Your task to perform on an android device: open app "Firefox Browser" (install if not already installed) and enter user name: "hashed@outlook.com" and password: "congestive" Image 0: 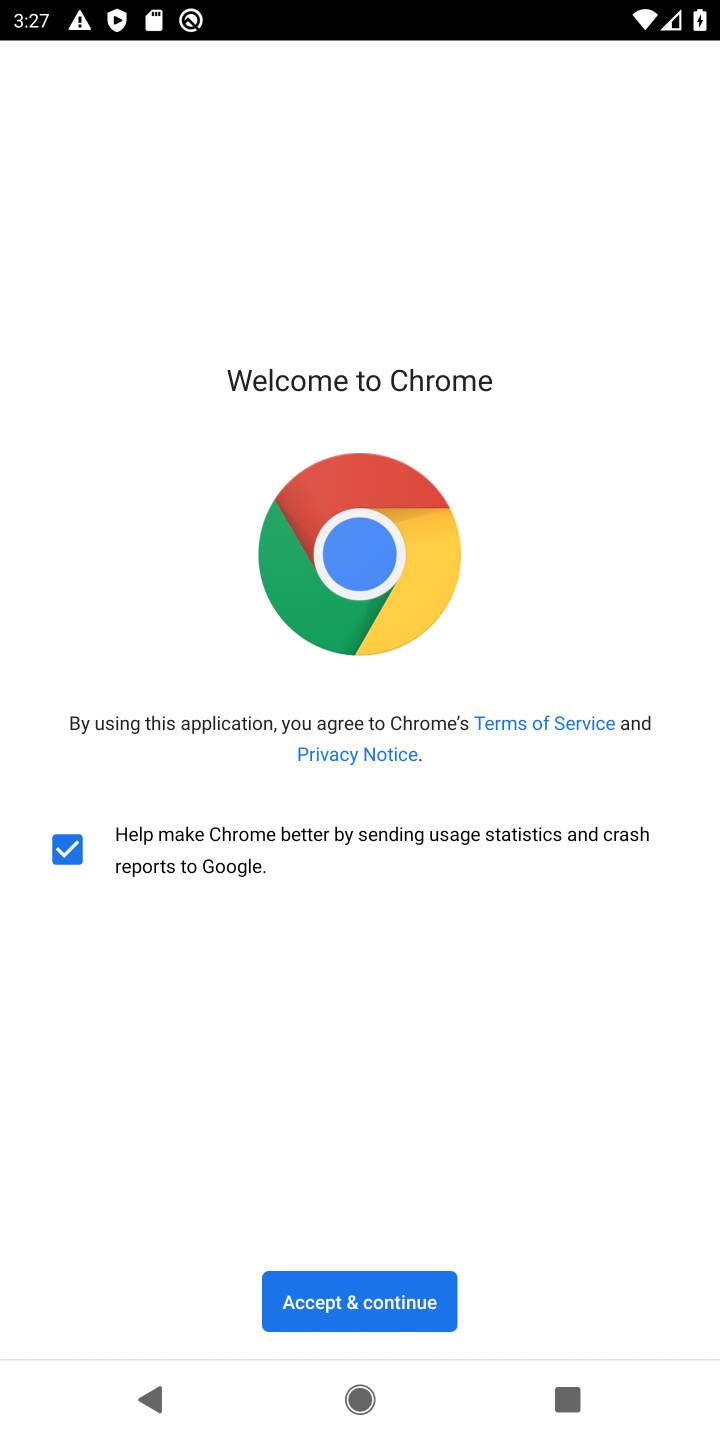
Step 0: press home button
Your task to perform on an android device: open app "Firefox Browser" (install if not already installed) and enter user name: "hashed@outlook.com" and password: "congestive" Image 1: 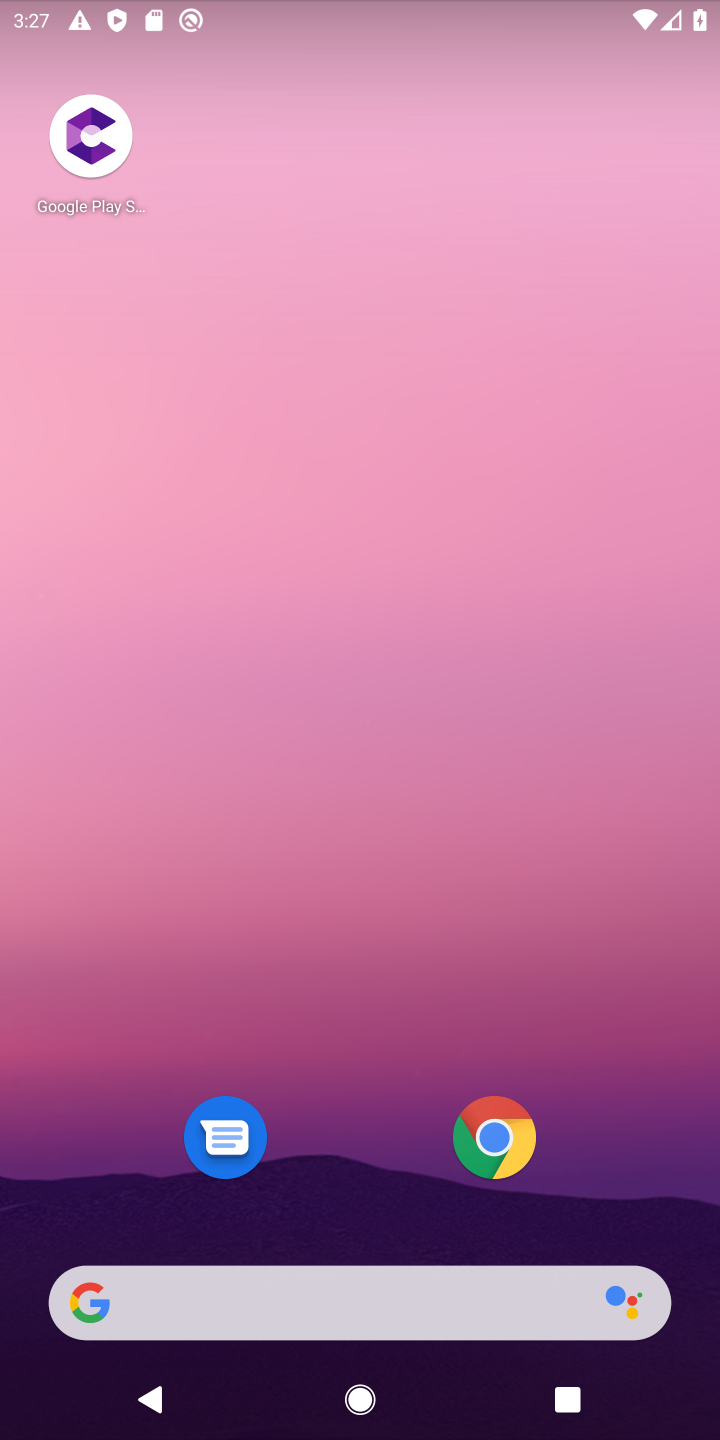
Step 1: drag from (297, 1282) to (255, 429)
Your task to perform on an android device: open app "Firefox Browser" (install if not already installed) and enter user name: "hashed@outlook.com" and password: "congestive" Image 2: 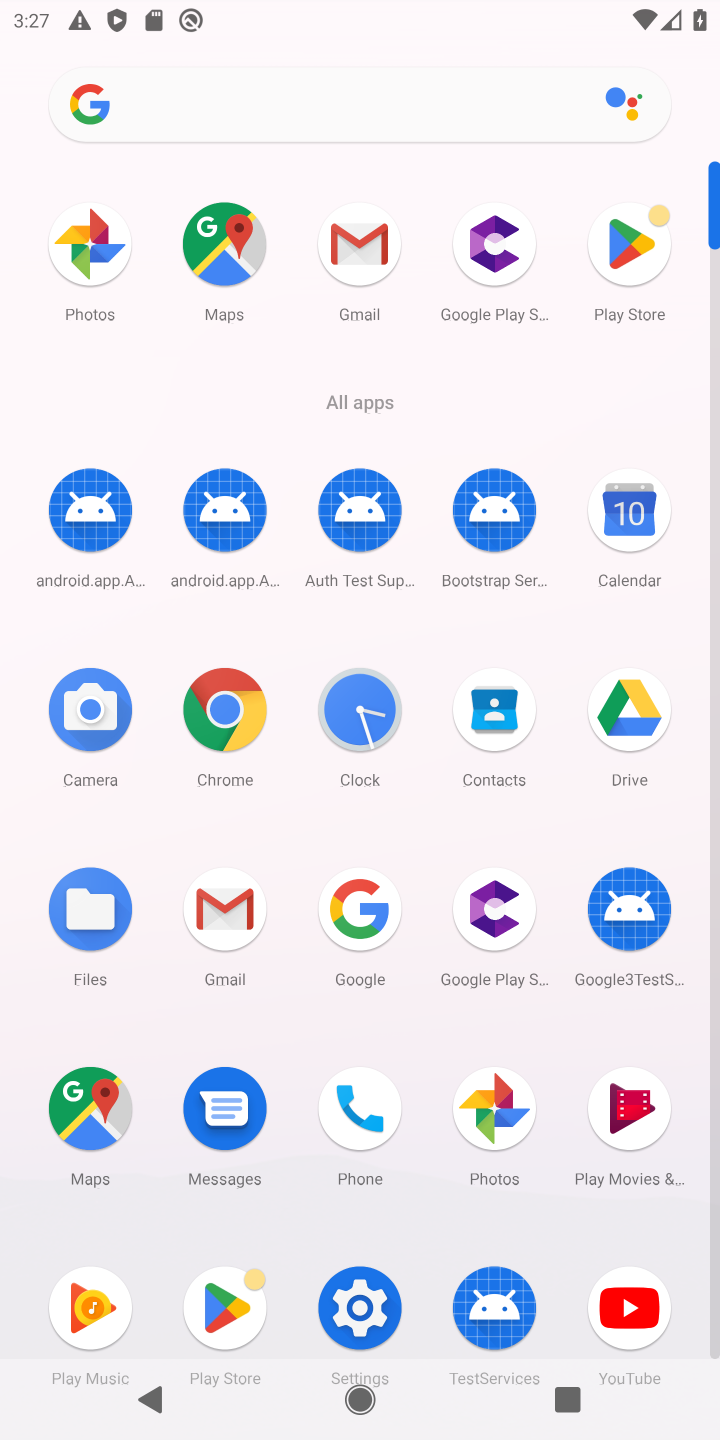
Step 2: click (626, 255)
Your task to perform on an android device: open app "Firefox Browser" (install if not already installed) and enter user name: "hashed@outlook.com" and password: "congestive" Image 3: 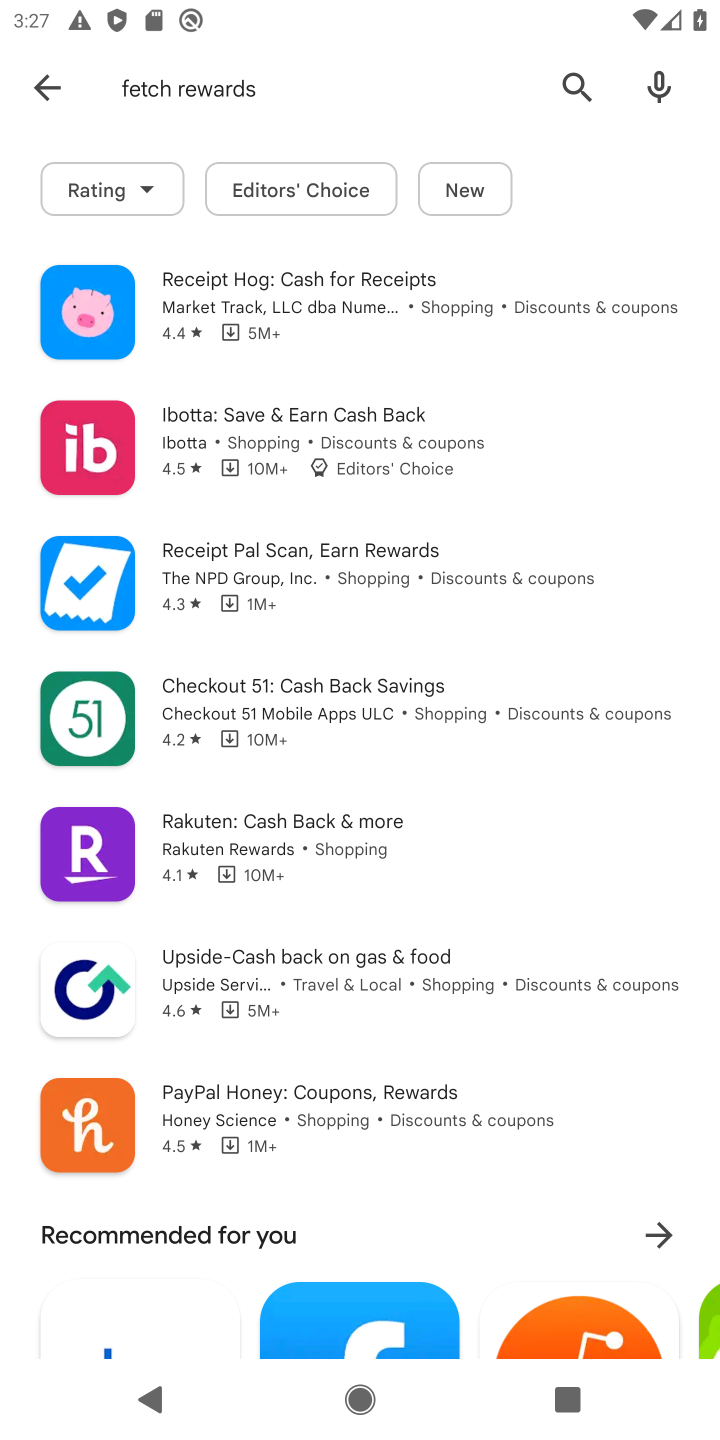
Step 3: press back button
Your task to perform on an android device: open app "Firefox Browser" (install if not already installed) and enter user name: "hashed@outlook.com" and password: "congestive" Image 4: 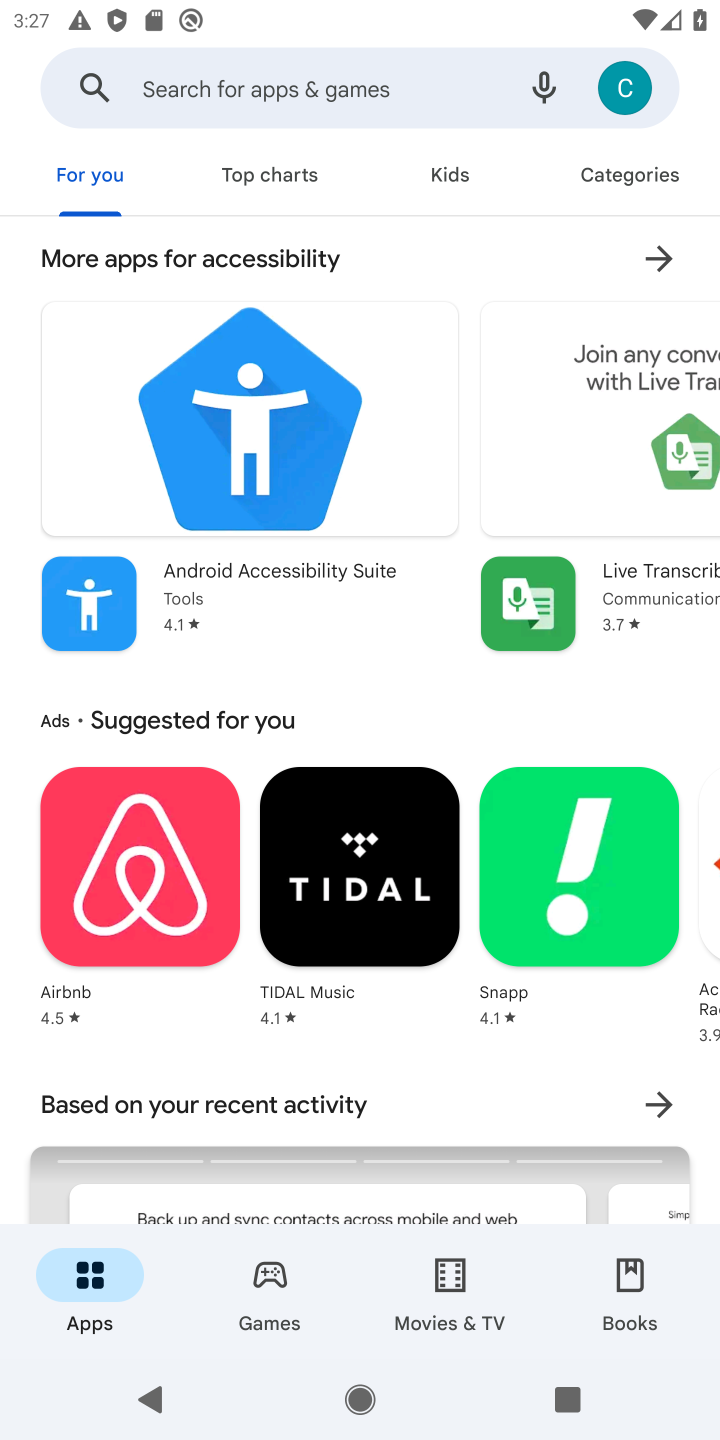
Step 4: click (383, 84)
Your task to perform on an android device: open app "Firefox Browser" (install if not already installed) and enter user name: "hashed@outlook.com" and password: "congestive" Image 5: 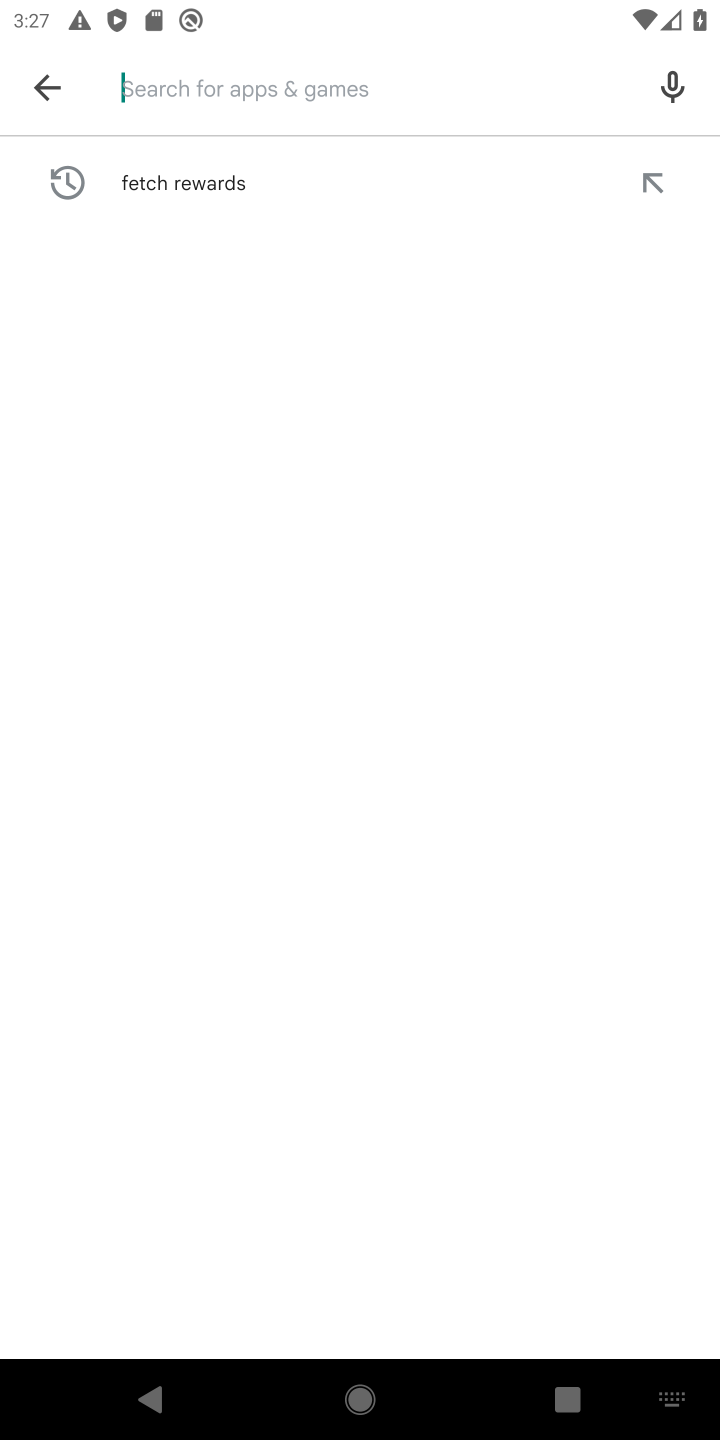
Step 5: type "Firefox Browser"
Your task to perform on an android device: open app "Firefox Browser" (install if not already installed) and enter user name: "hashed@outlook.com" and password: "congestive" Image 6: 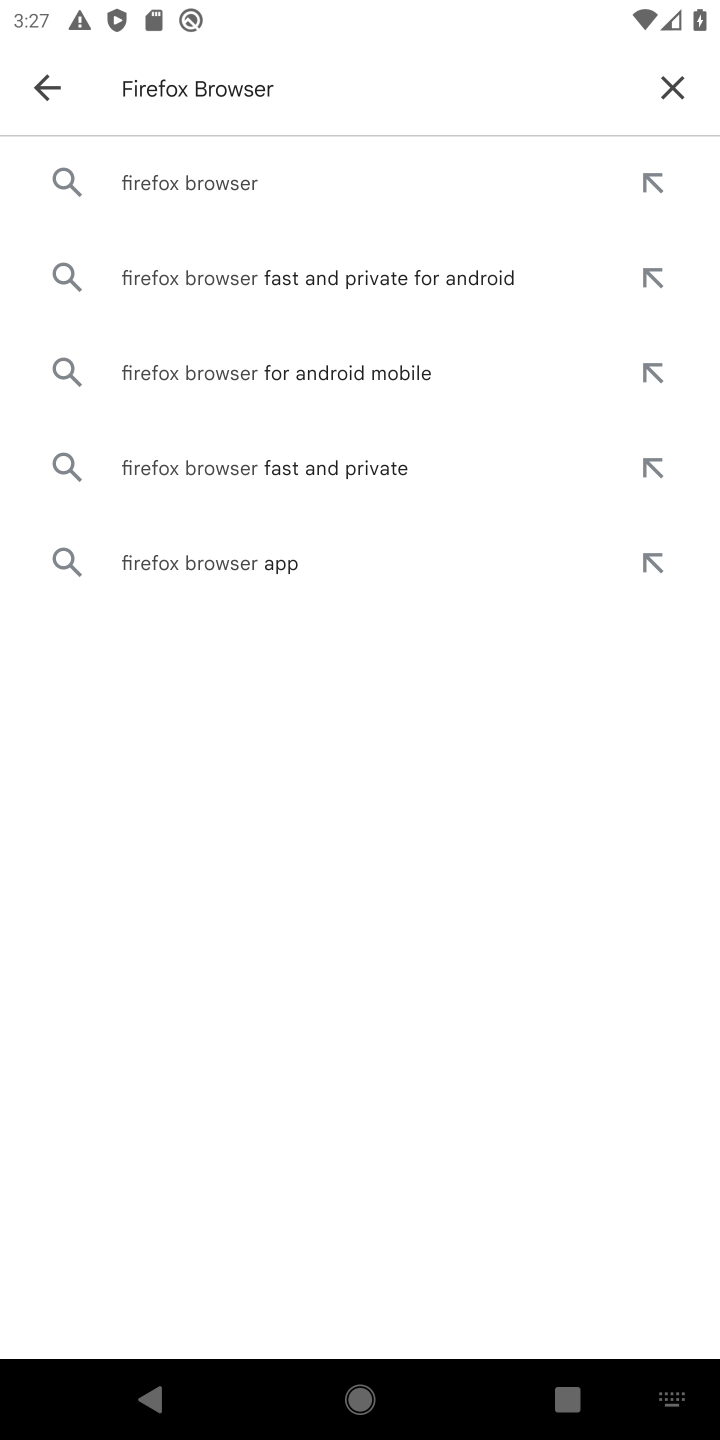
Step 6: click (137, 185)
Your task to perform on an android device: open app "Firefox Browser" (install if not already installed) and enter user name: "hashed@outlook.com" and password: "congestive" Image 7: 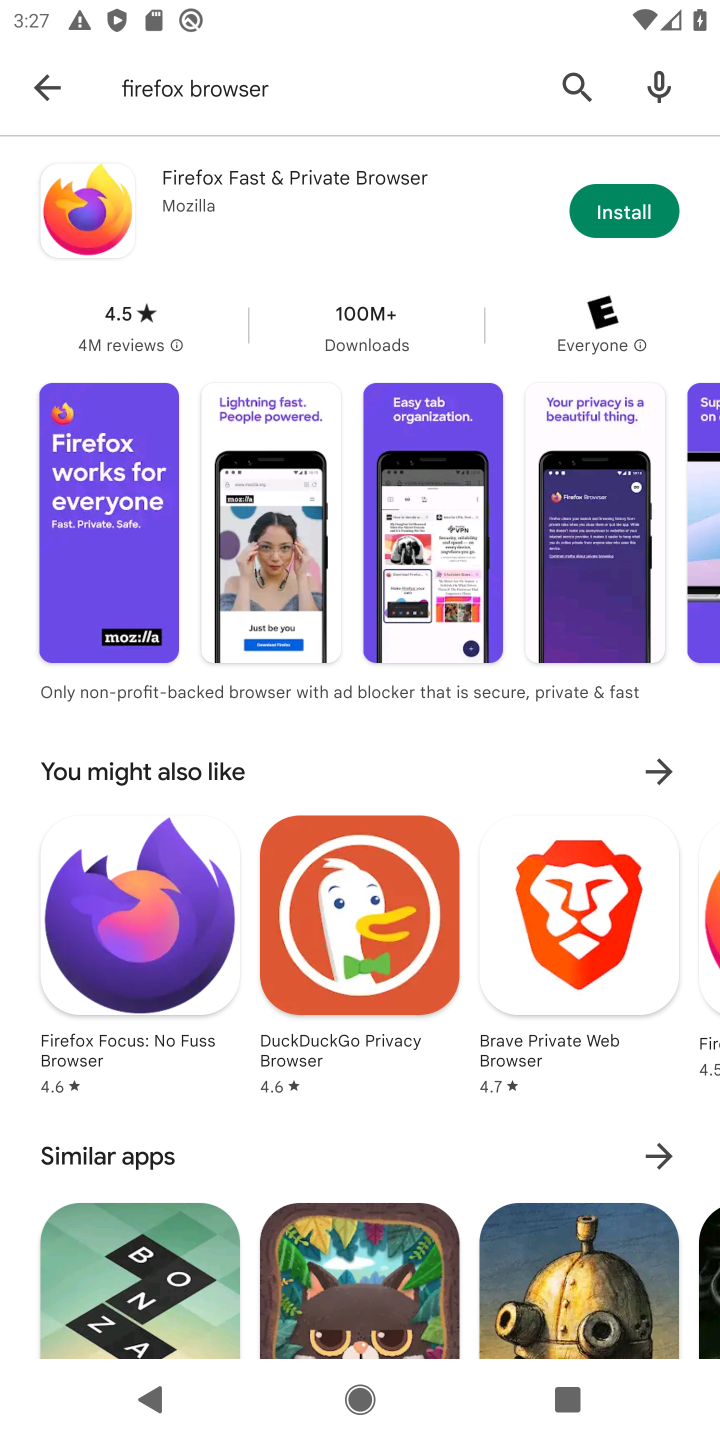
Step 7: click (645, 216)
Your task to perform on an android device: open app "Firefox Browser" (install if not already installed) and enter user name: "hashed@outlook.com" and password: "congestive" Image 8: 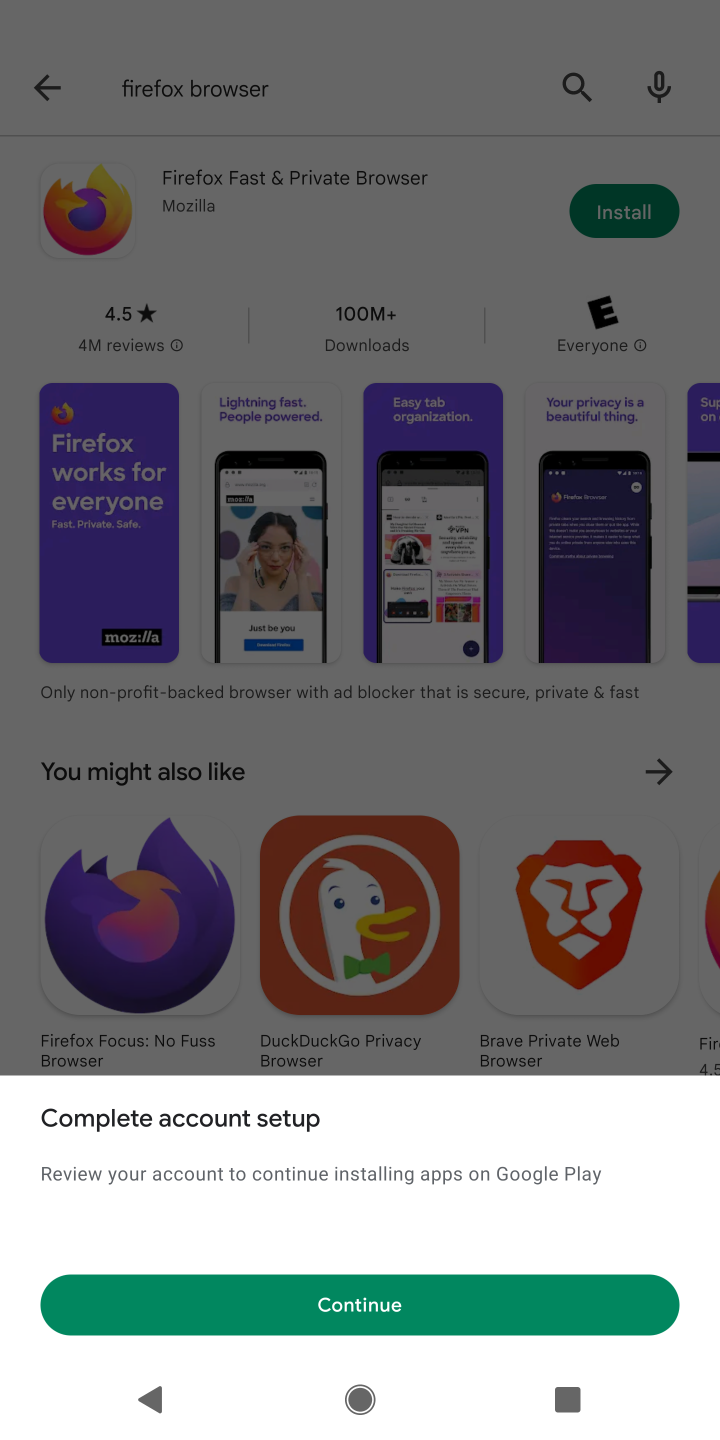
Step 8: click (389, 1299)
Your task to perform on an android device: open app "Firefox Browser" (install if not already installed) and enter user name: "hashed@outlook.com" and password: "congestive" Image 9: 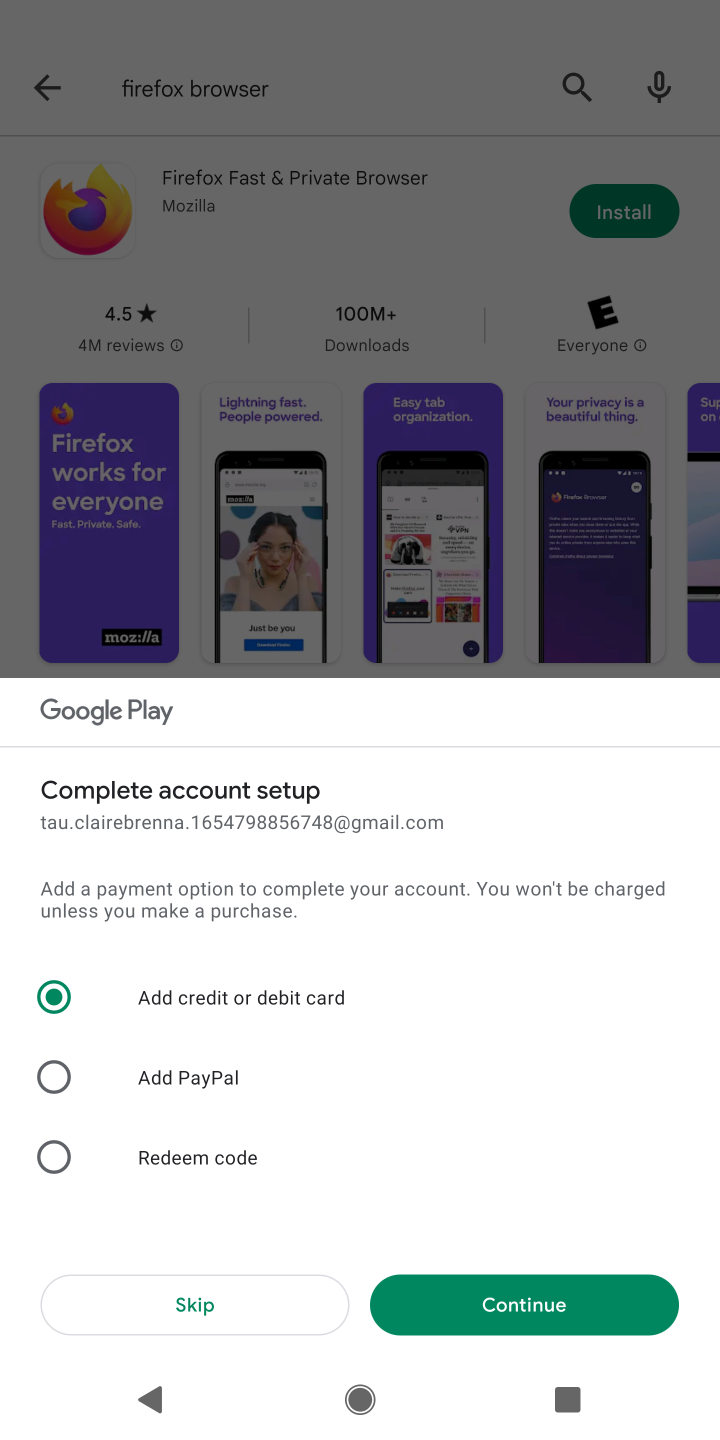
Step 9: click (191, 1296)
Your task to perform on an android device: open app "Firefox Browser" (install if not already installed) and enter user name: "hashed@outlook.com" and password: "congestive" Image 10: 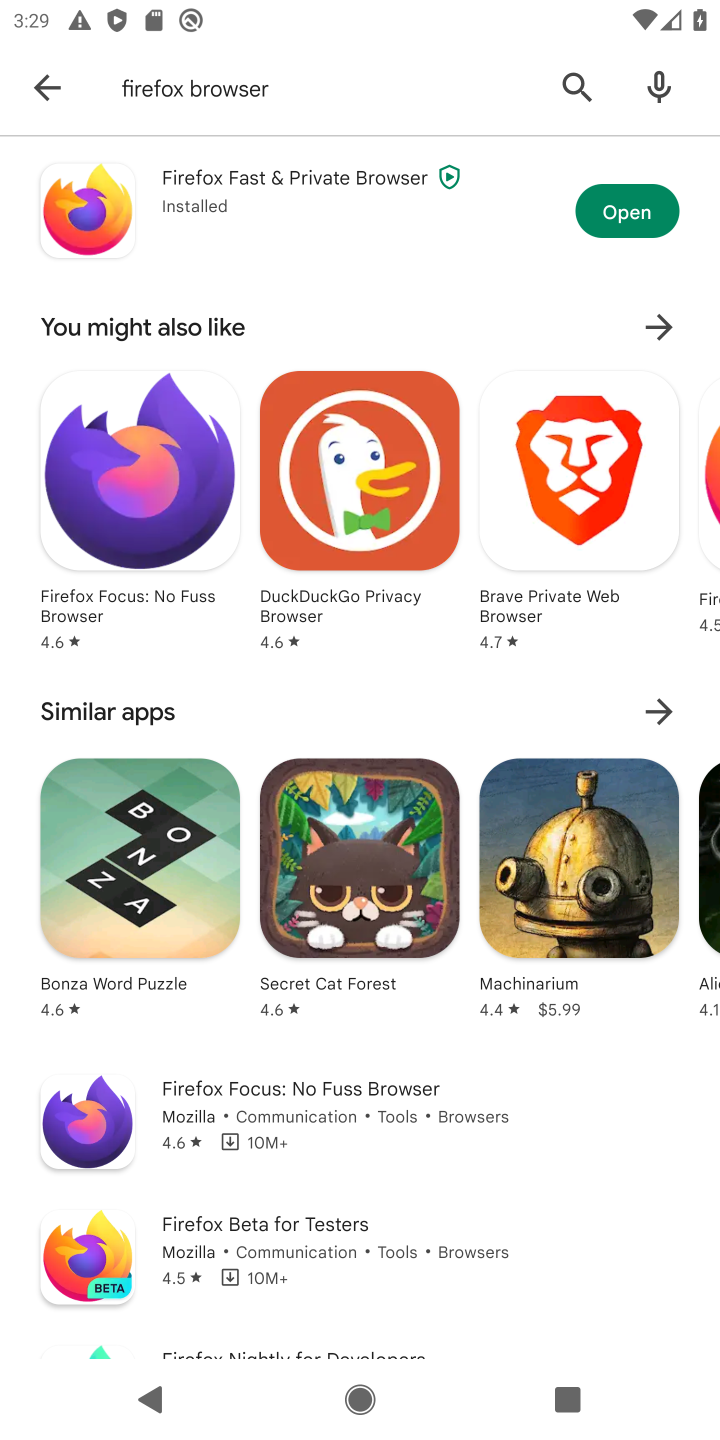
Step 10: click (642, 214)
Your task to perform on an android device: open app "Firefox Browser" (install if not already installed) and enter user name: "hashed@outlook.com" and password: "congestive" Image 11: 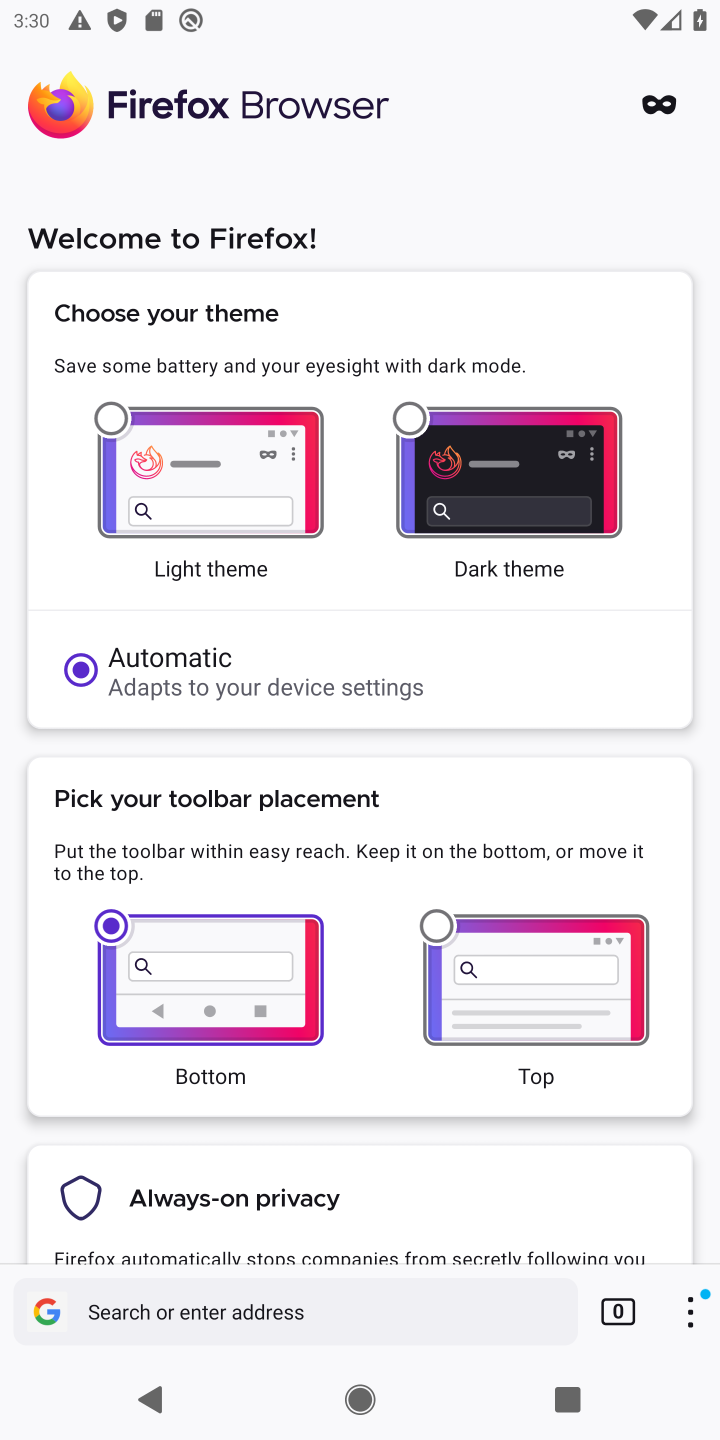
Step 11: click (685, 1316)
Your task to perform on an android device: open app "Firefox Browser" (install if not already installed) and enter user name: "hashed@outlook.com" and password: "congestive" Image 12: 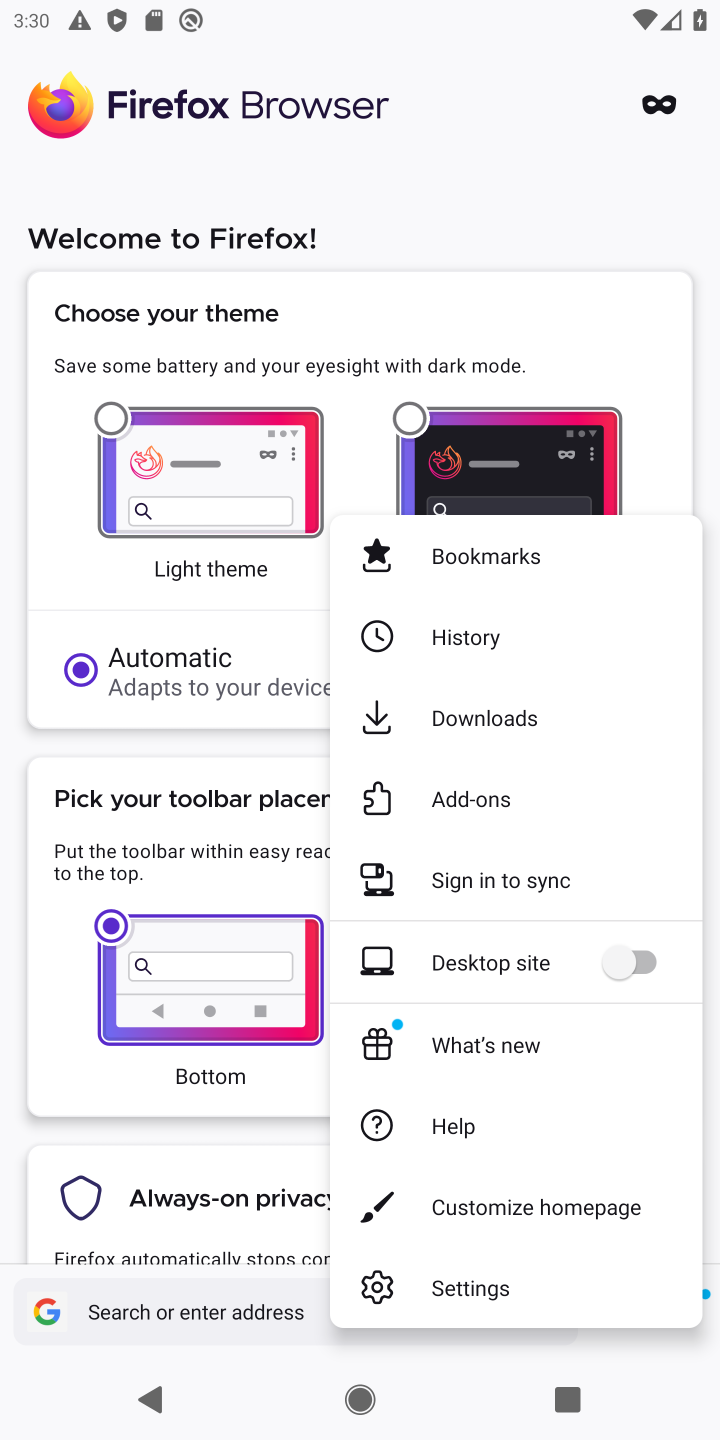
Step 12: click (509, 900)
Your task to perform on an android device: open app "Firefox Browser" (install if not already installed) and enter user name: "hashed@outlook.com" and password: "congestive" Image 13: 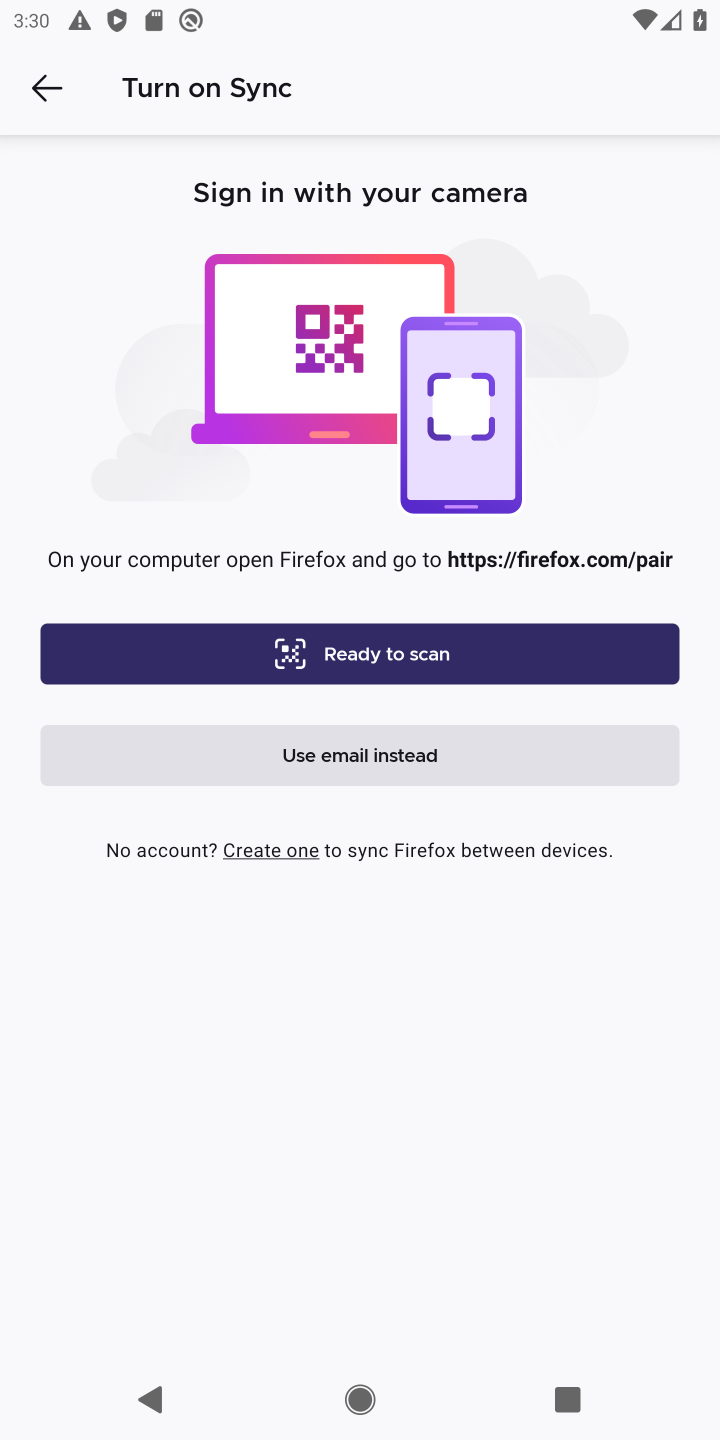
Step 13: click (394, 770)
Your task to perform on an android device: open app "Firefox Browser" (install if not already installed) and enter user name: "hashed@outlook.com" and password: "congestive" Image 14: 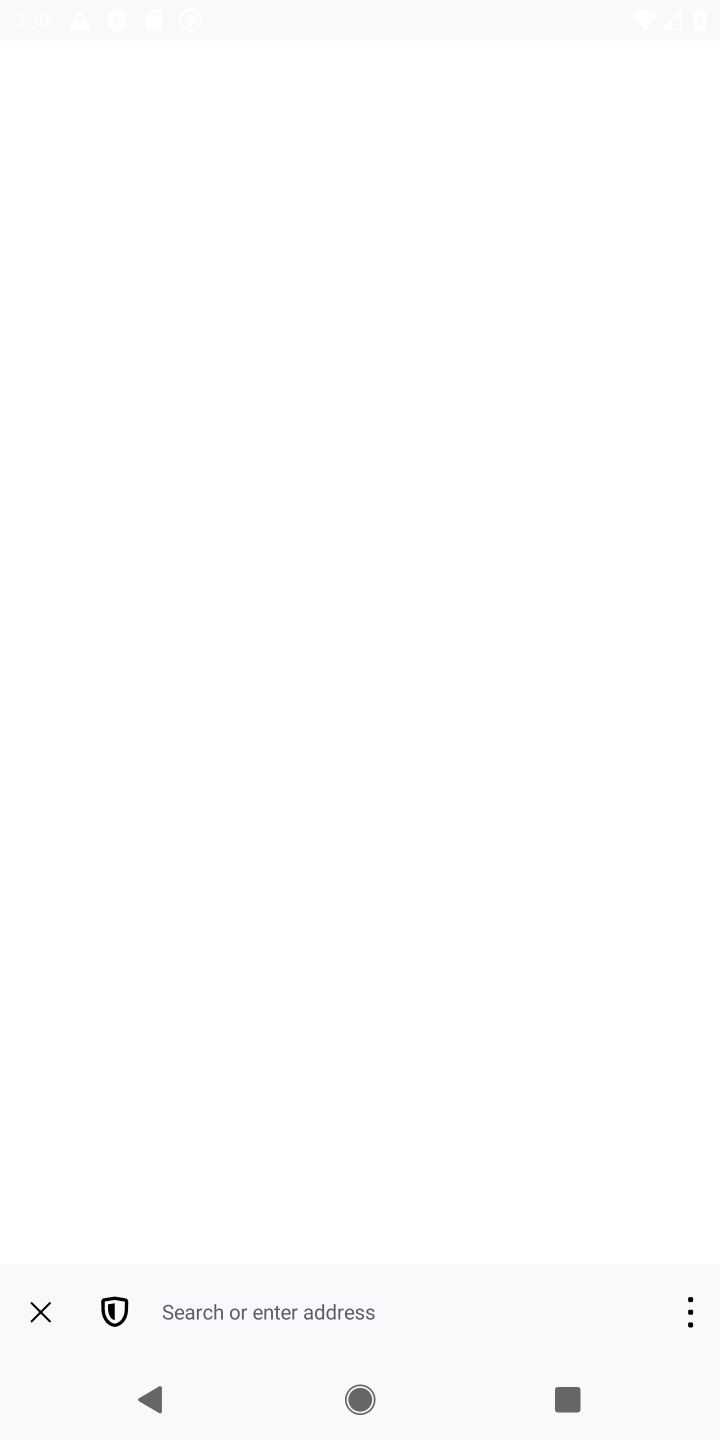
Step 14: click (389, 746)
Your task to perform on an android device: open app "Firefox Browser" (install if not already installed) and enter user name: "hashed@outlook.com" and password: "congestive" Image 15: 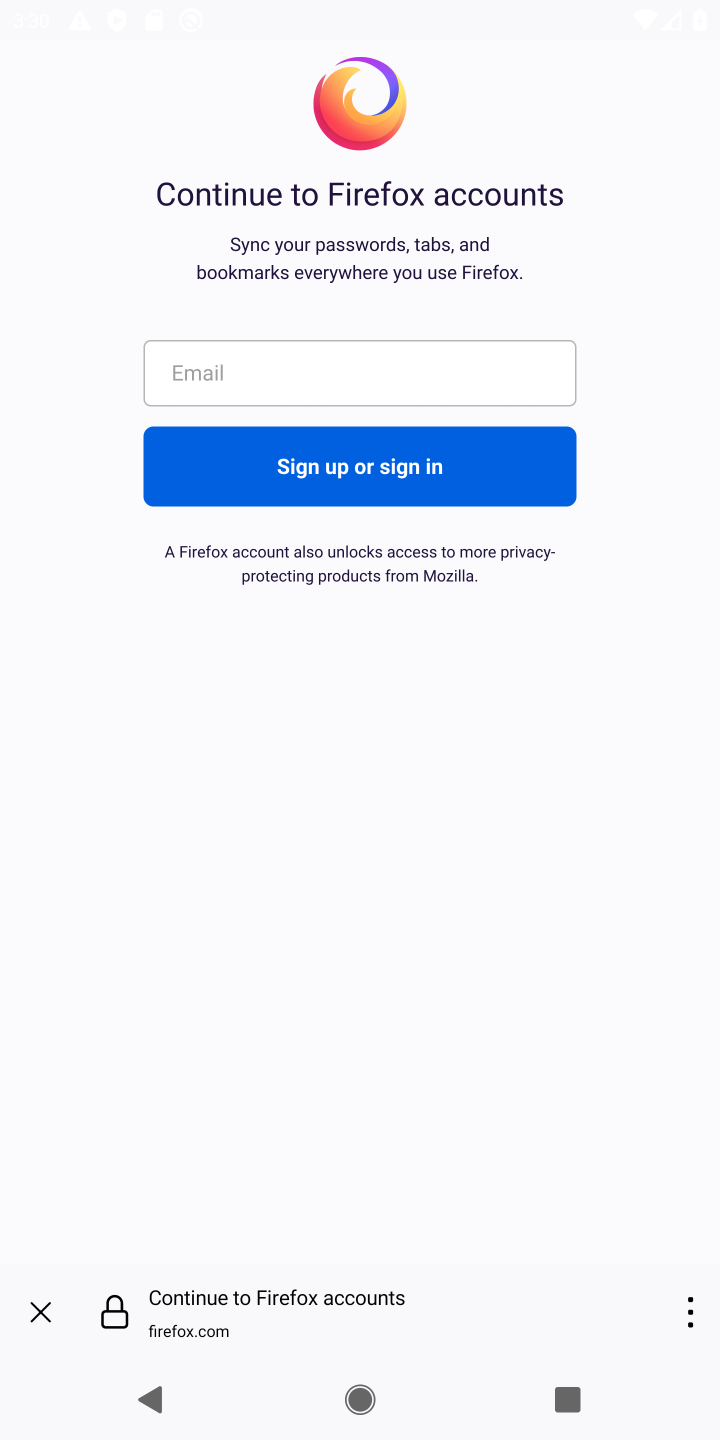
Step 15: click (314, 388)
Your task to perform on an android device: open app "Firefox Browser" (install if not already installed) and enter user name: "hashed@outlook.com" and password: "congestive" Image 16: 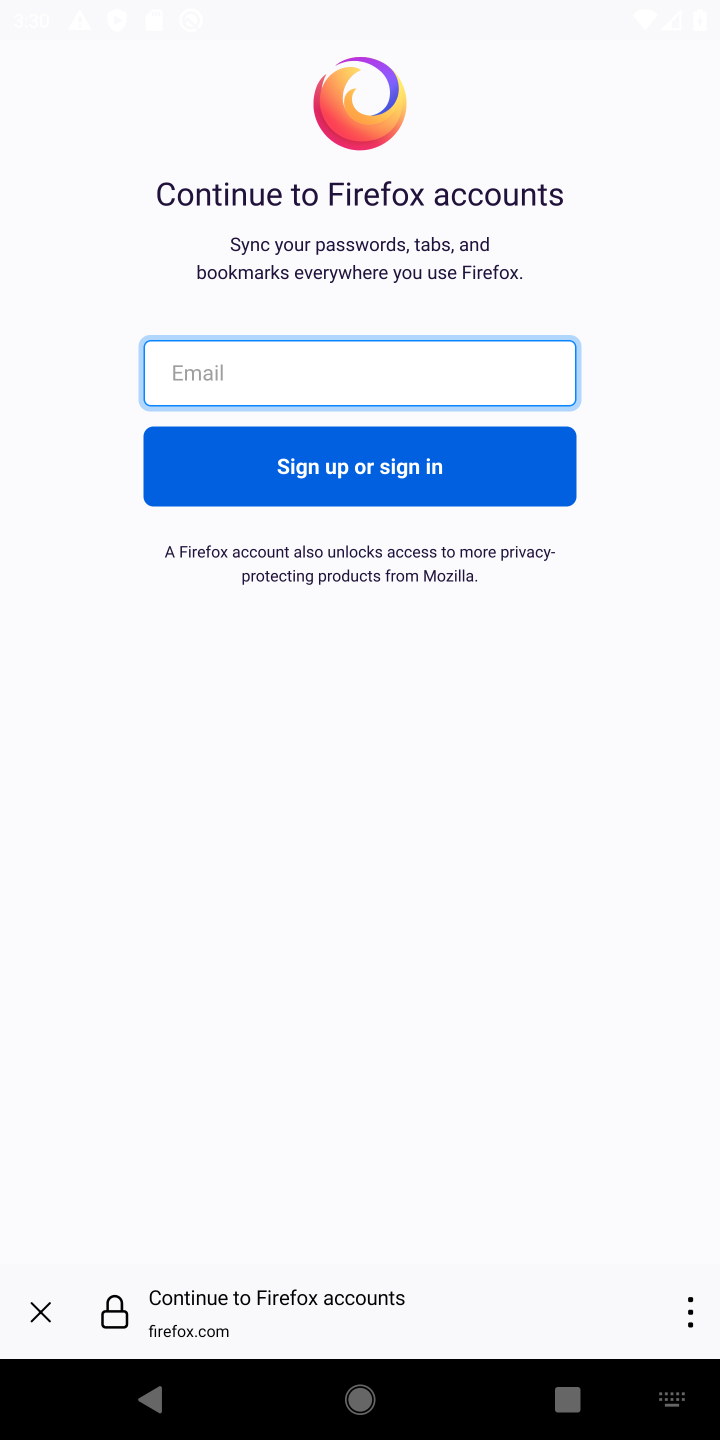
Step 16: click (370, 375)
Your task to perform on an android device: open app "Firefox Browser" (install if not already installed) and enter user name: "hashed@outlook.com" and password: "congestive" Image 17: 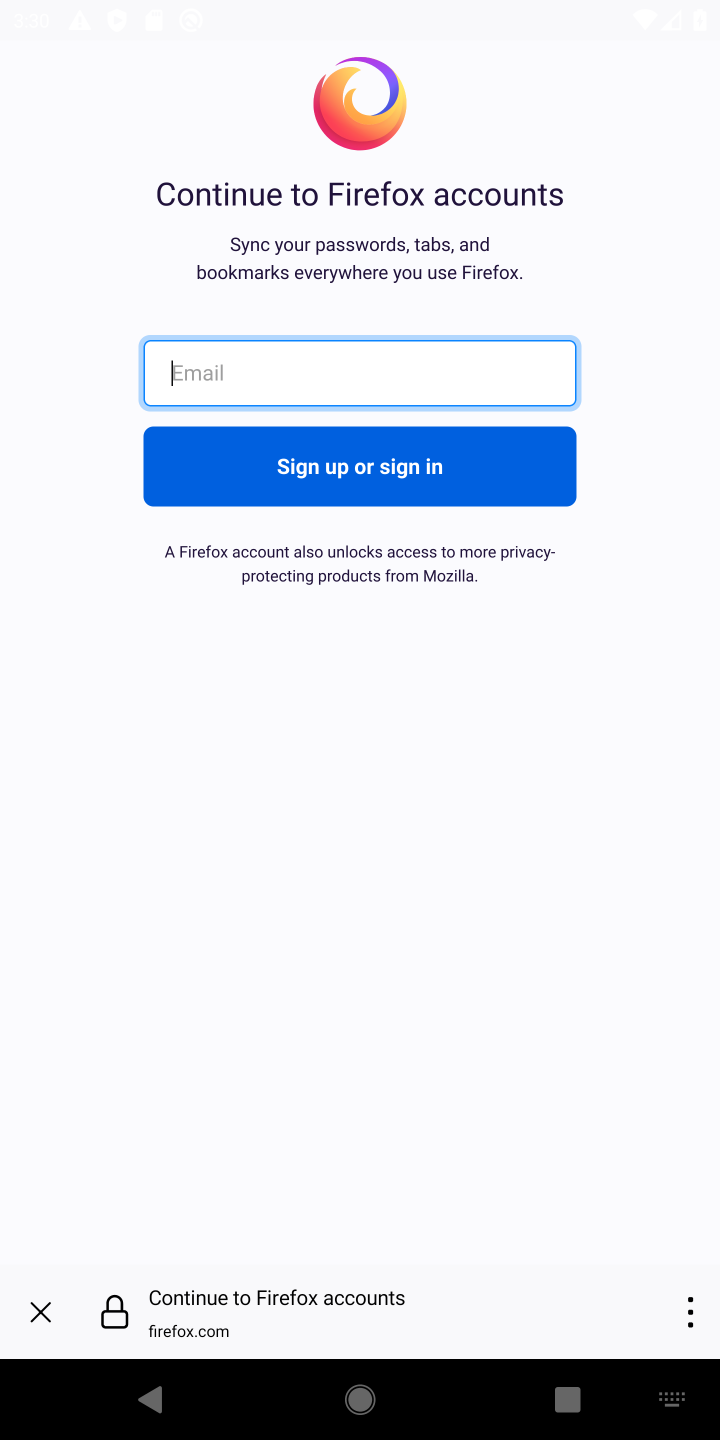
Step 17: type "hashed@outlook.com"
Your task to perform on an android device: open app "Firefox Browser" (install if not already installed) and enter user name: "hashed@outlook.com" and password: "congestive" Image 18: 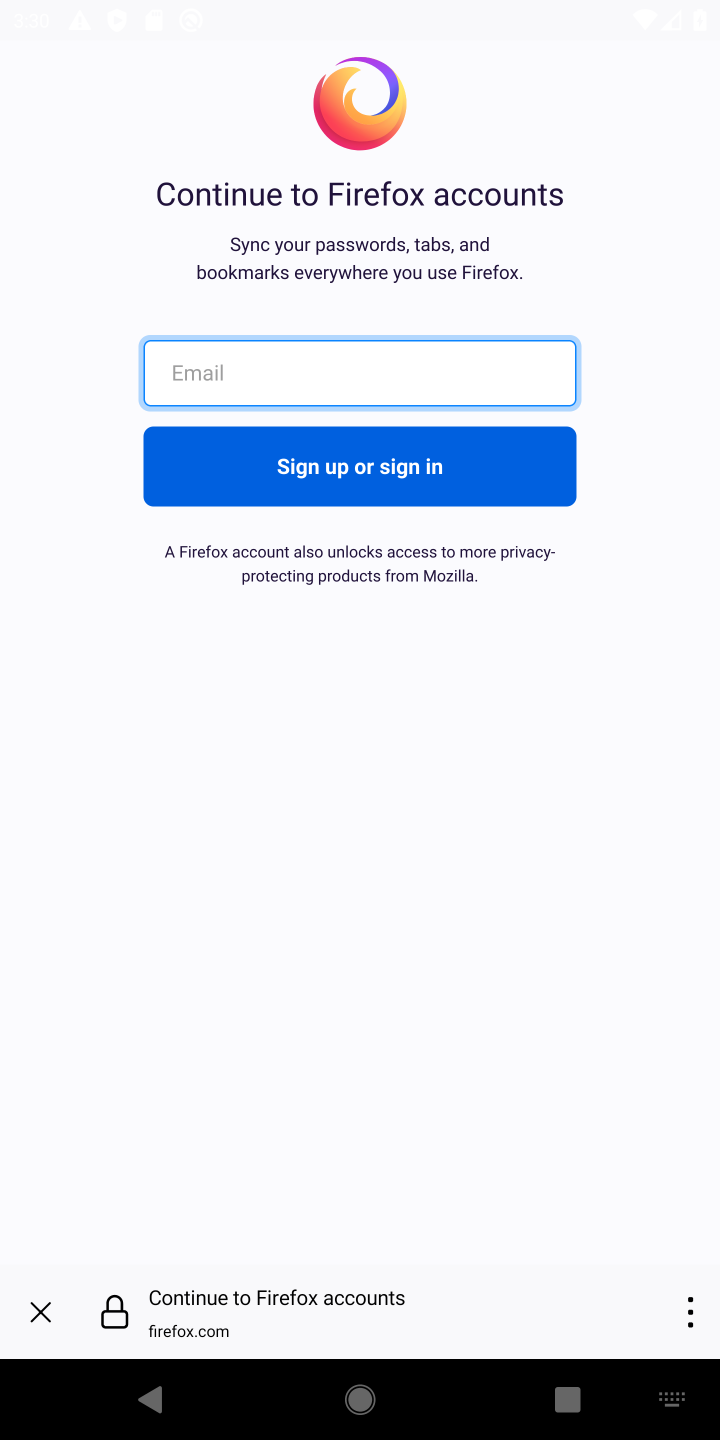
Step 18: type ""
Your task to perform on an android device: open app "Firefox Browser" (install if not already installed) and enter user name: "hashed@outlook.com" and password: "congestive" Image 19: 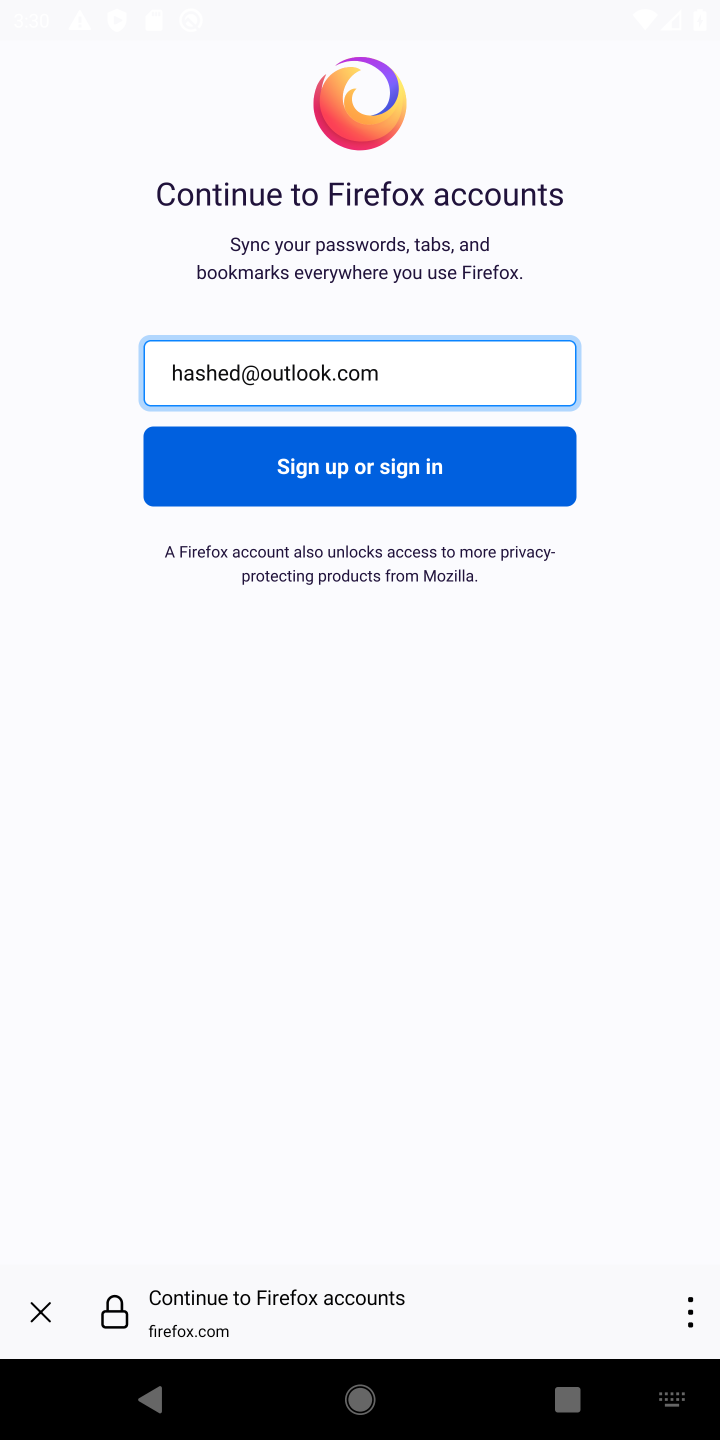
Step 19: click (358, 474)
Your task to perform on an android device: open app "Firefox Browser" (install if not already installed) and enter user name: "hashed@outlook.com" and password: "congestive" Image 20: 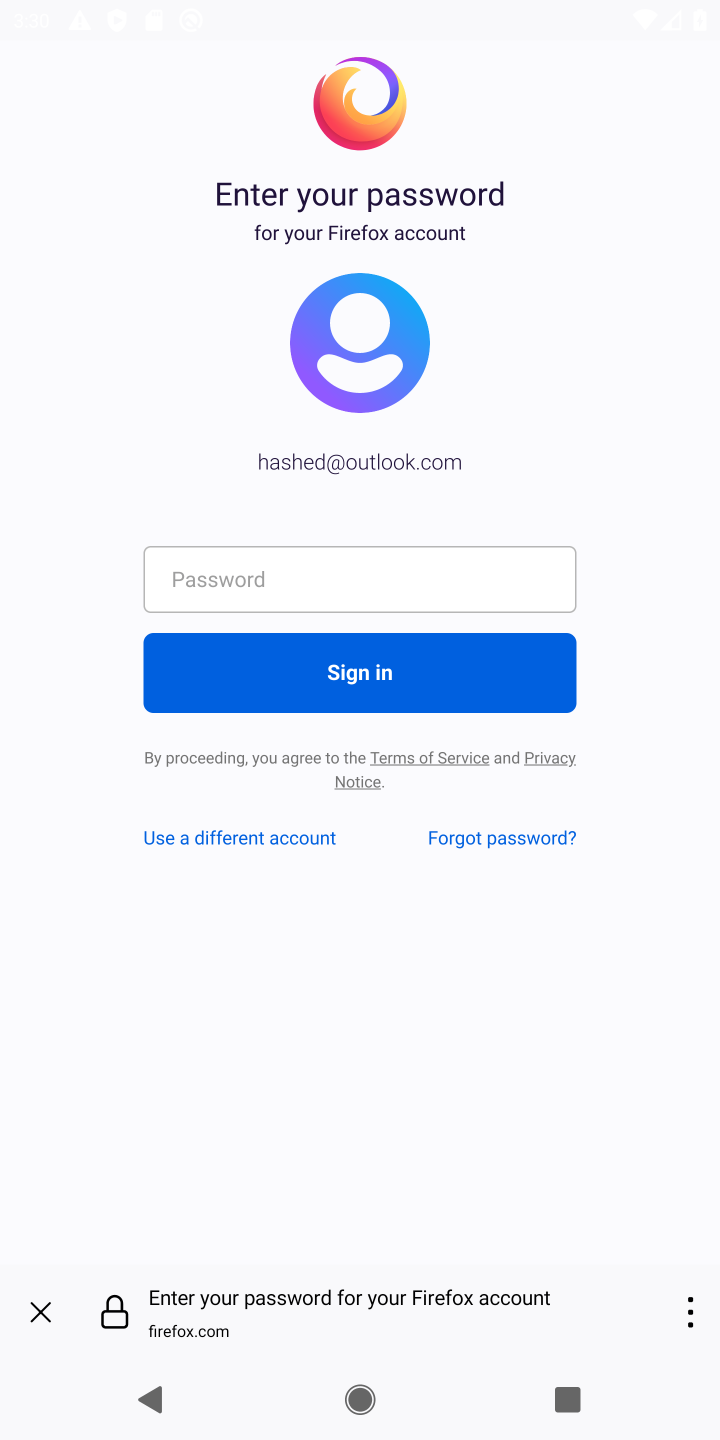
Step 20: click (249, 597)
Your task to perform on an android device: open app "Firefox Browser" (install if not already installed) and enter user name: "hashed@outlook.com" and password: "congestive" Image 21: 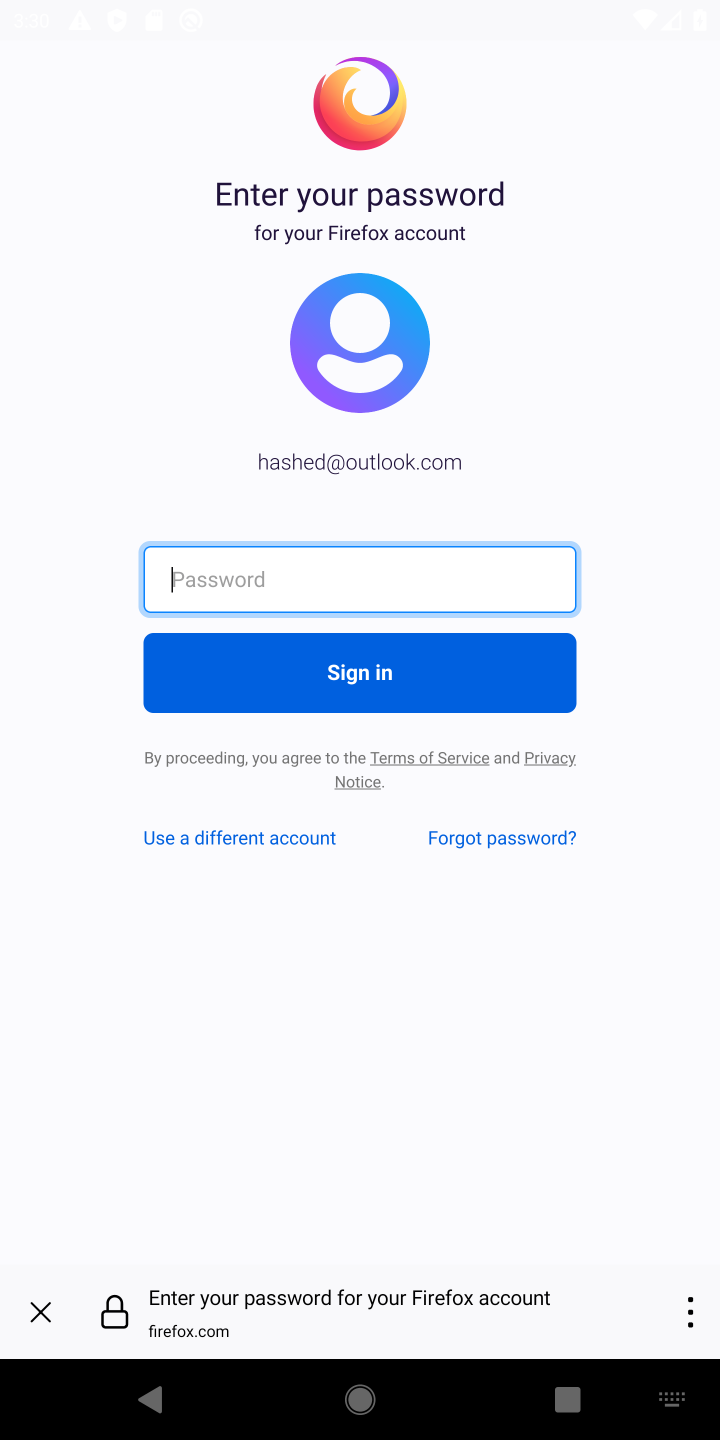
Step 21: click (317, 588)
Your task to perform on an android device: open app "Firefox Browser" (install if not already installed) and enter user name: "hashed@outlook.com" and password: "congestive" Image 22: 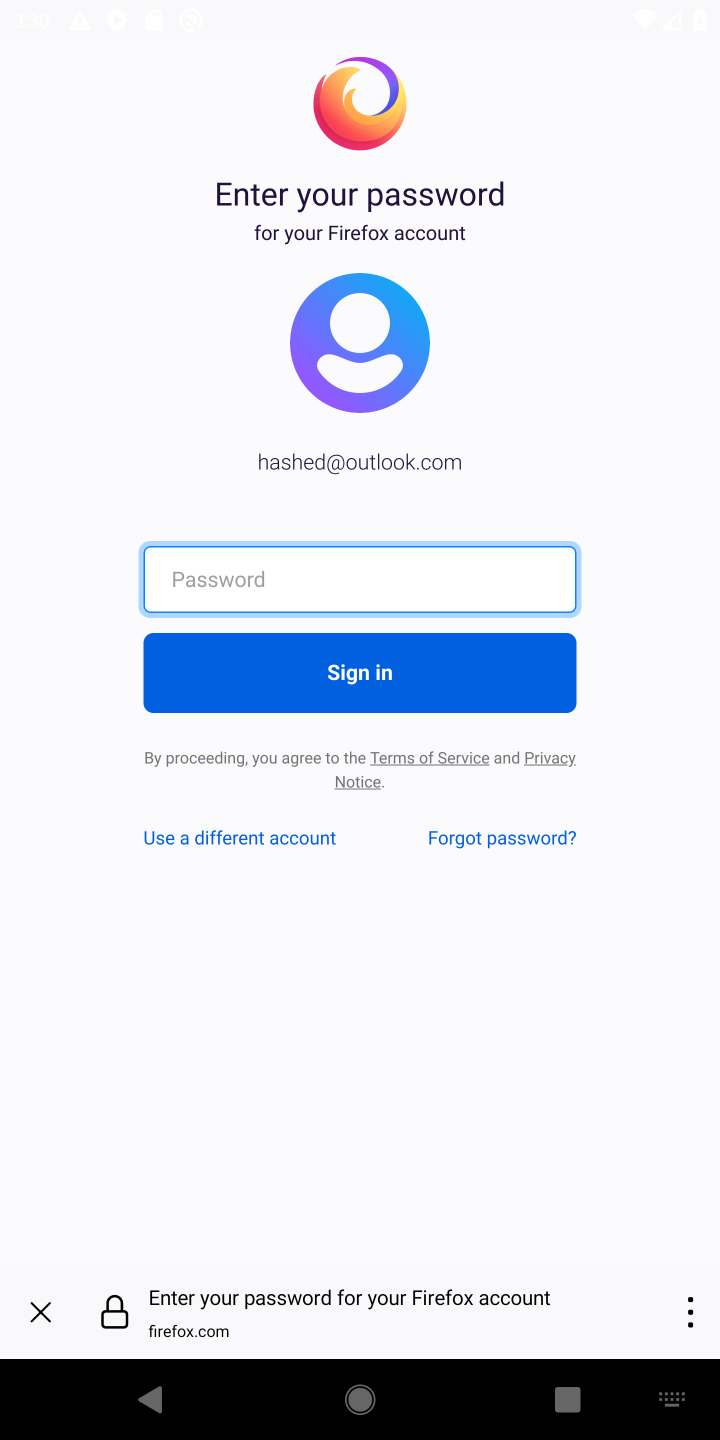
Step 22: type "congestive"
Your task to perform on an android device: open app "Firefox Browser" (install if not already installed) and enter user name: "hashed@outlook.com" and password: "congestive" Image 23: 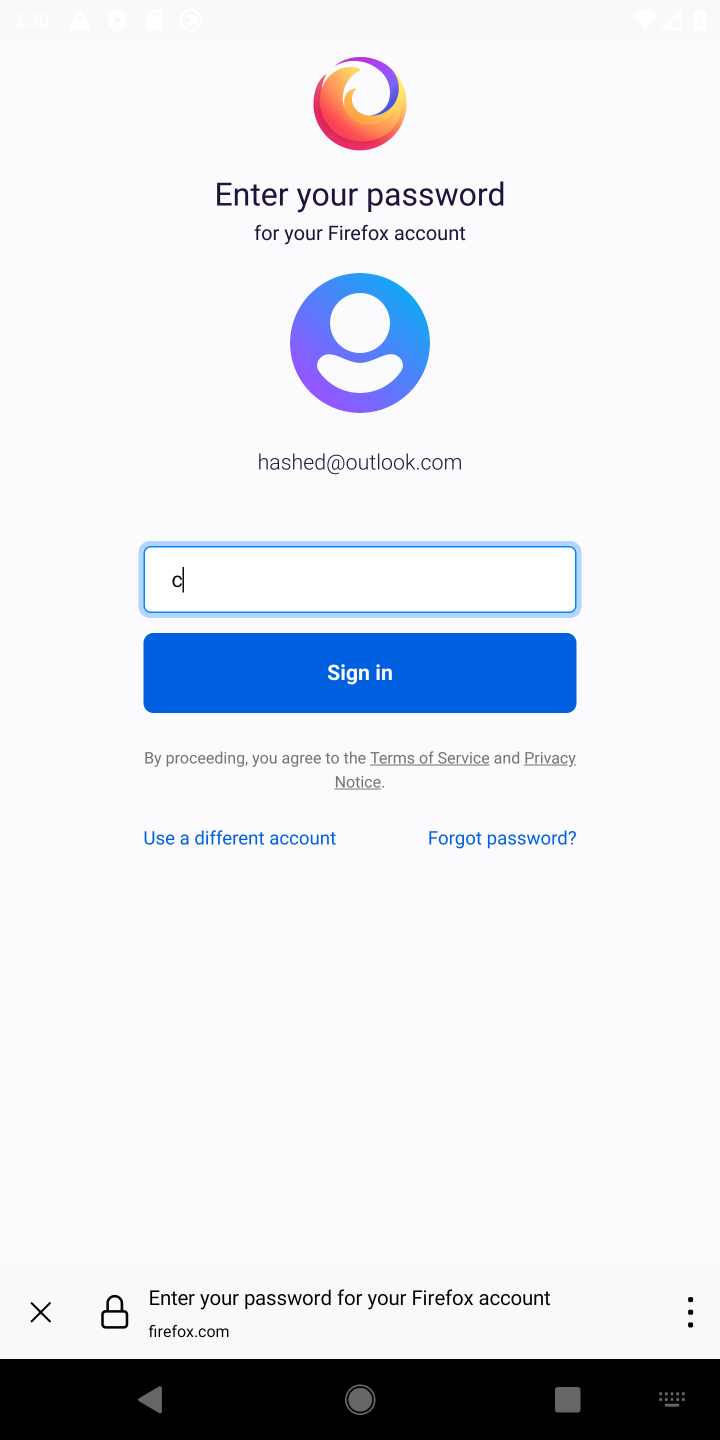
Step 23: type ""
Your task to perform on an android device: open app "Firefox Browser" (install if not already installed) and enter user name: "hashed@outlook.com" and password: "congestive" Image 24: 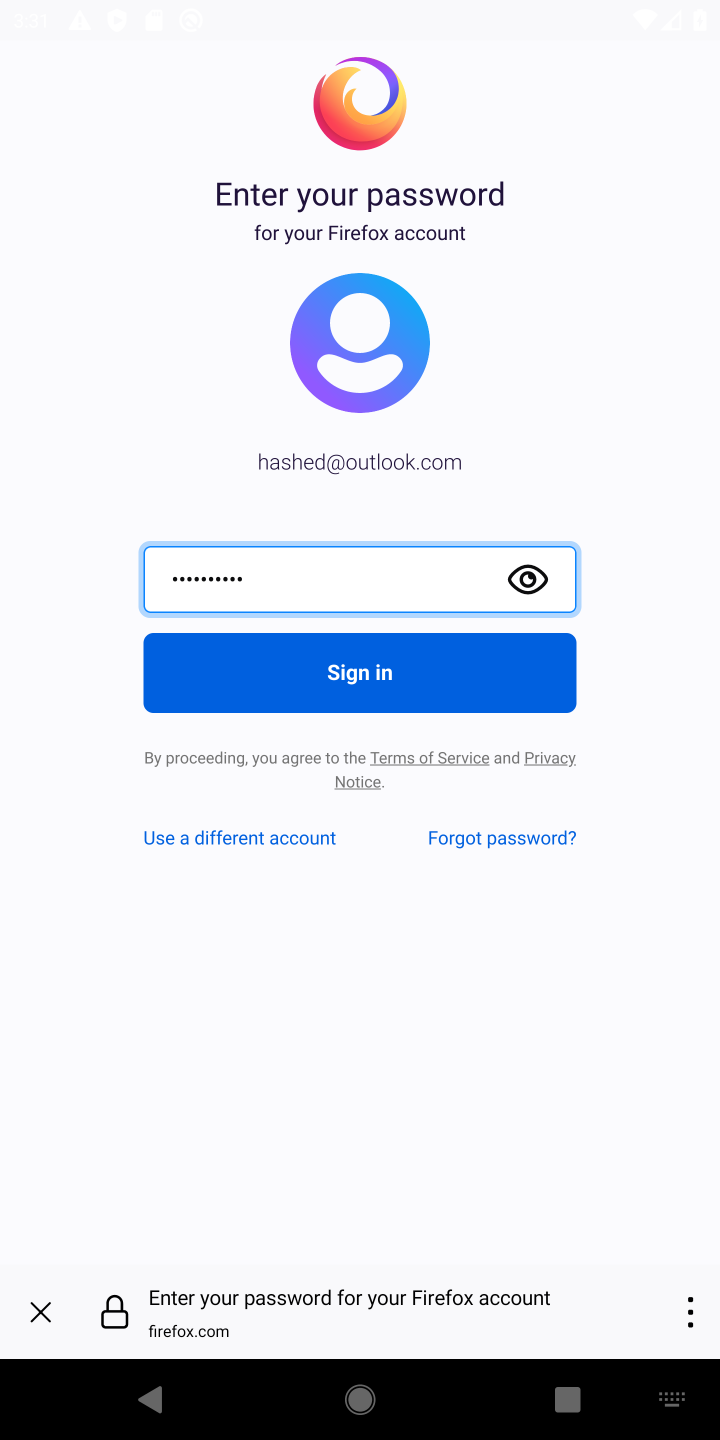
Step 24: task complete